Your task to perform on an android device: Clear the cart on walmart.com. Add duracell triple a to the cart on walmart.com Image 0: 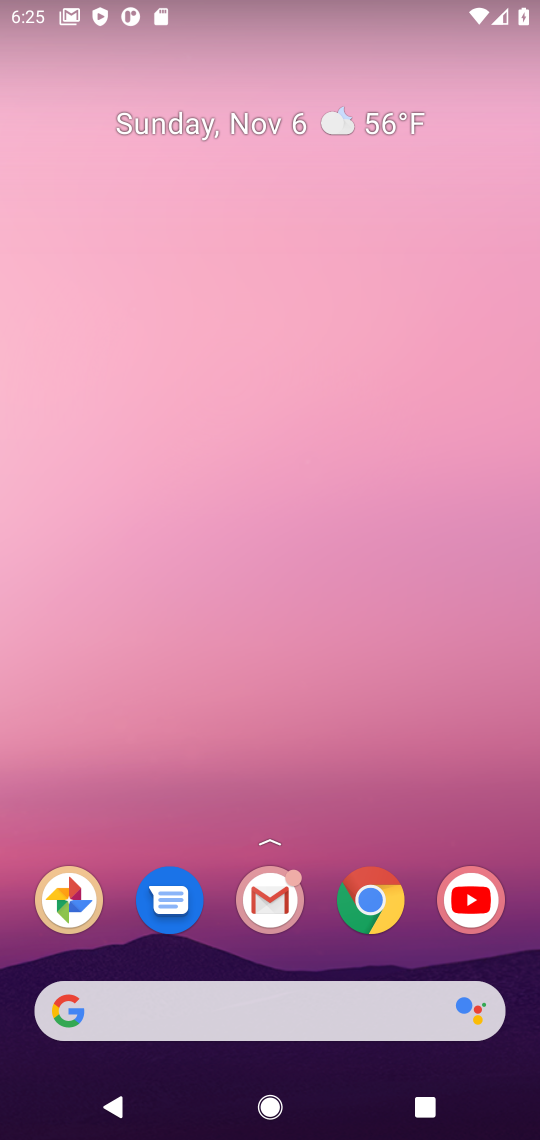
Step 0: drag from (333, 914) to (307, 68)
Your task to perform on an android device: Clear the cart on walmart.com. Add duracell triple a to the cart on walmart.com Image 1: 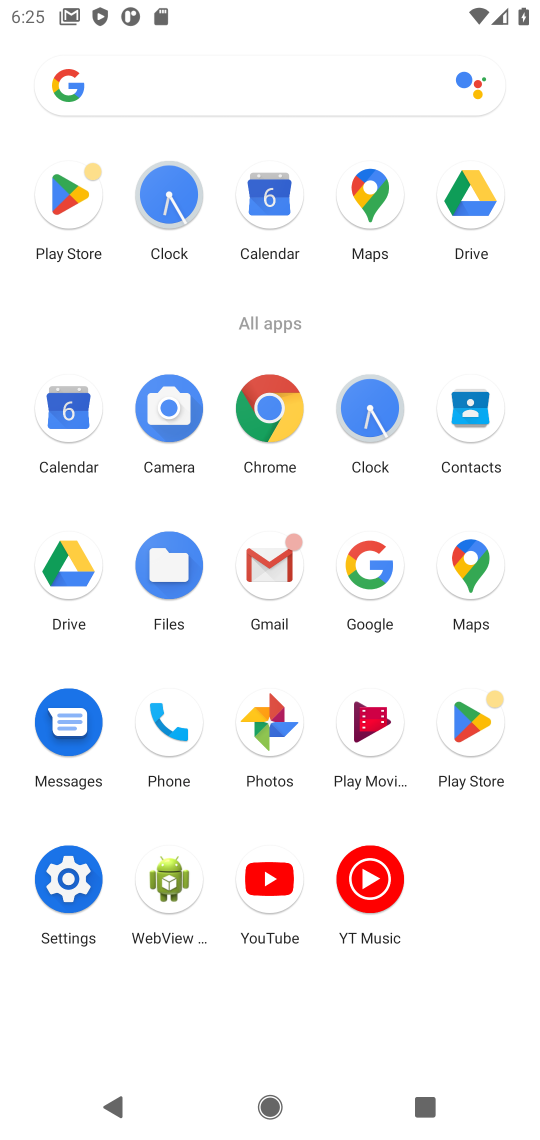
Step 1: click (271, 416)
Your task to perform on an android device: Clear the cart on walmart.com. Add duracell triple a to the cart on walmart.com Image 2: 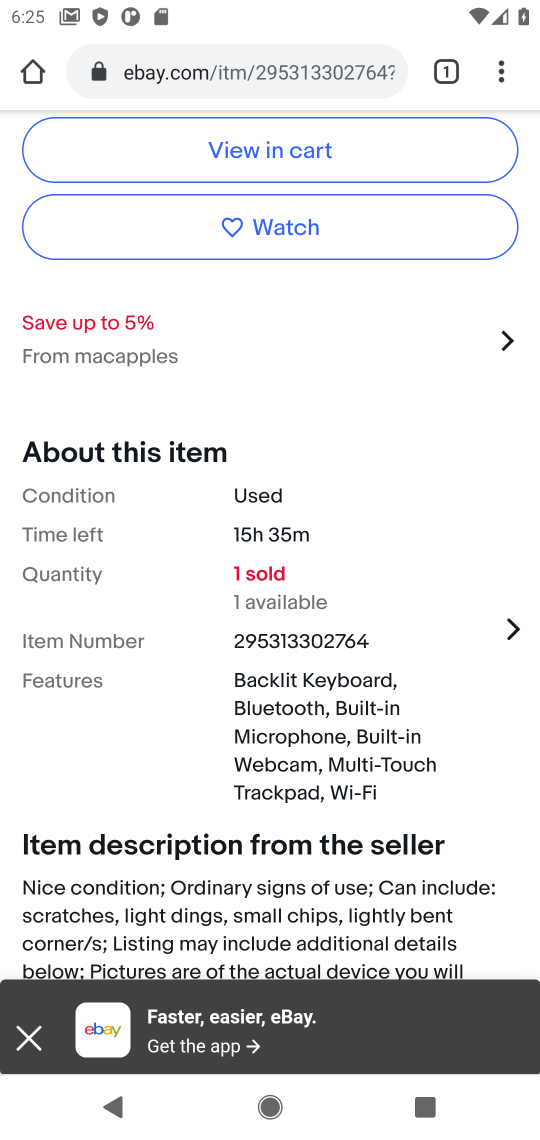
Step 2: click (303, 73)
Your task to perform on an android device: Clear the cart on walmart.com. Add duracell triple a to the cart on walmart.com Image 3: 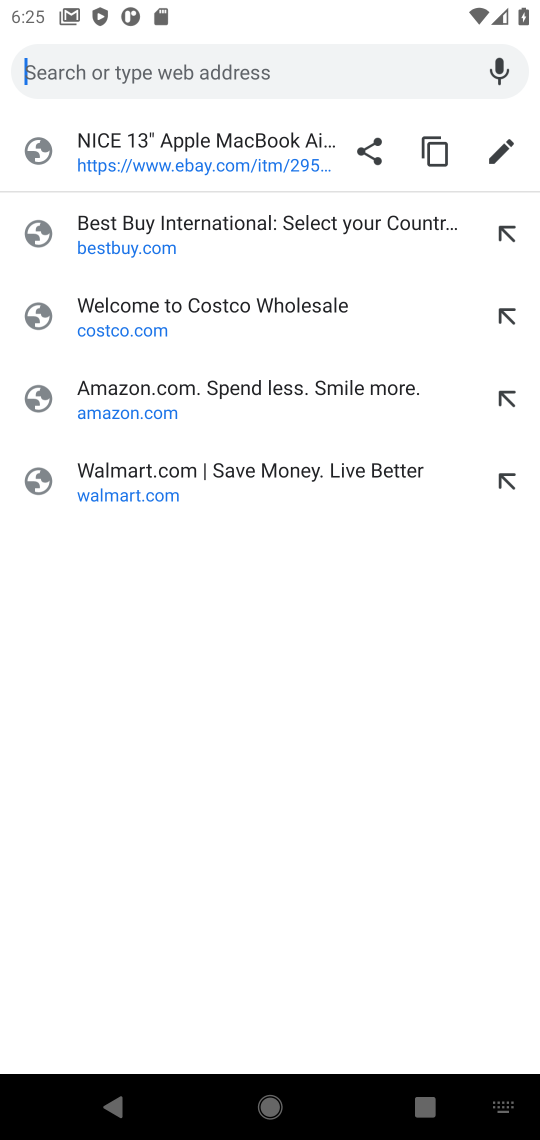
Step 3: type "walmart.com"
Your task to perform on an android device: Clear the cart on walmart.com. Add duracell triple a to the cart on walmart.com Image 4: 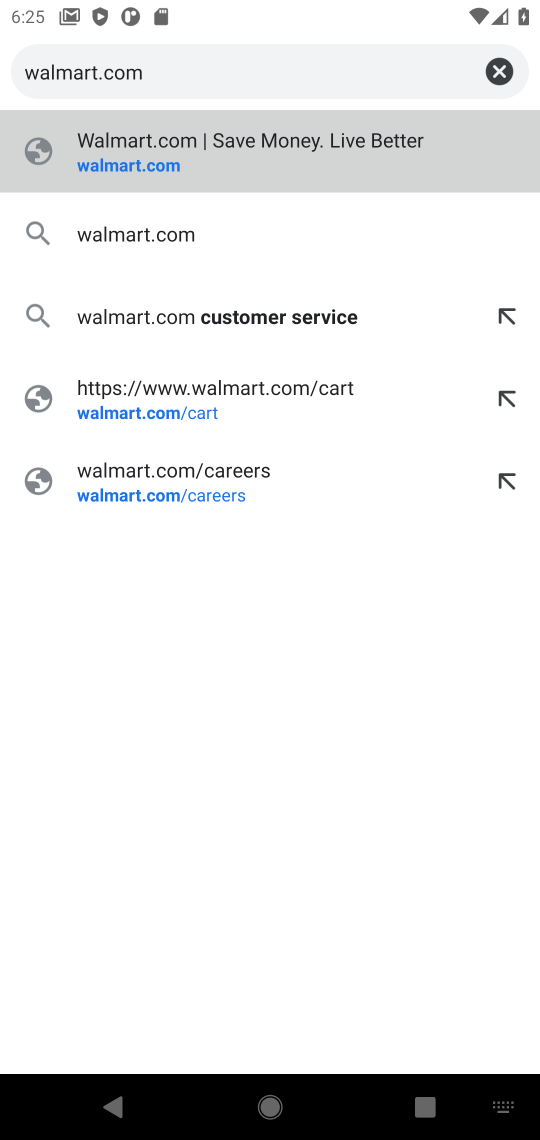
Step 4: press enter
Your task to perform on an android device: Clear the cart on walmart.com. Add duracell triple a to the cart on walmart.com Image 5: 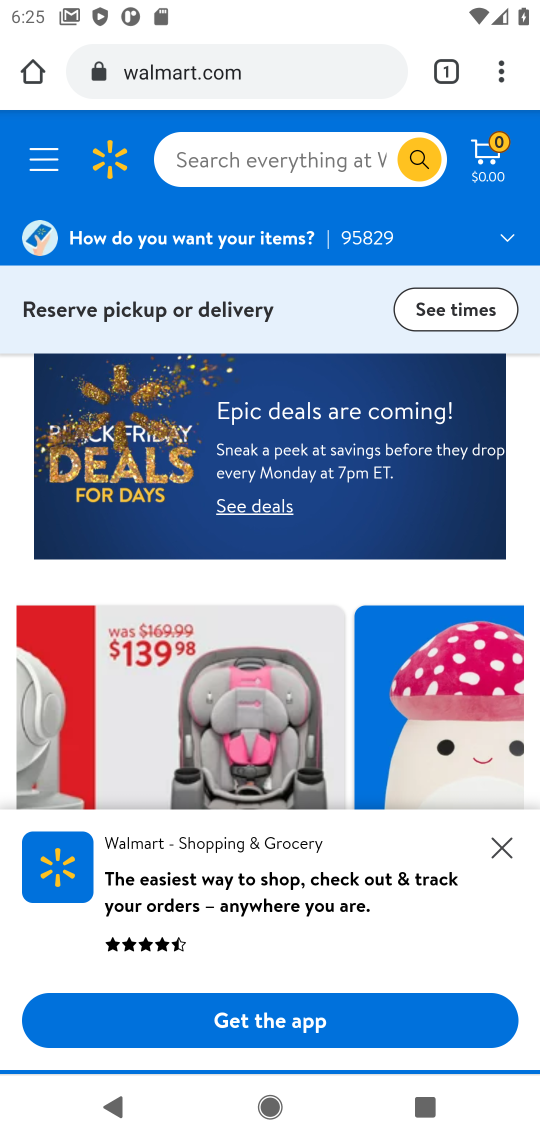
Step 5: click (487, 153)
Your task to perform on an android device: Clear the cart on walmart.com. Add duracell triple a to the cart on walmart.com Image 6: 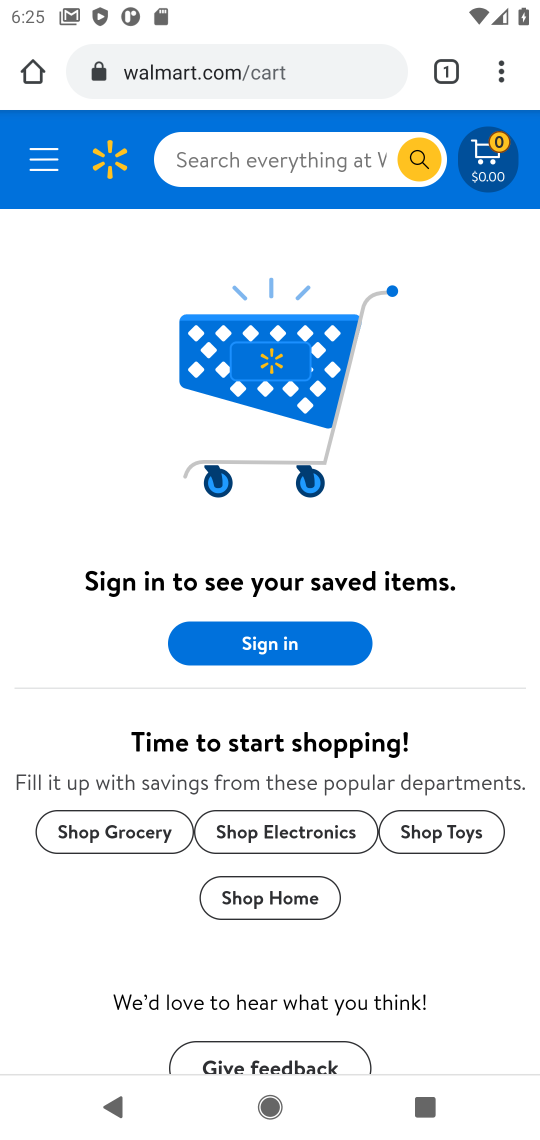
Step 6: click (298, 150)
Your task to perform on an android device: Clear the cart on walmart.com. Add duracell triple a to the cart on walmart.com Image 7: 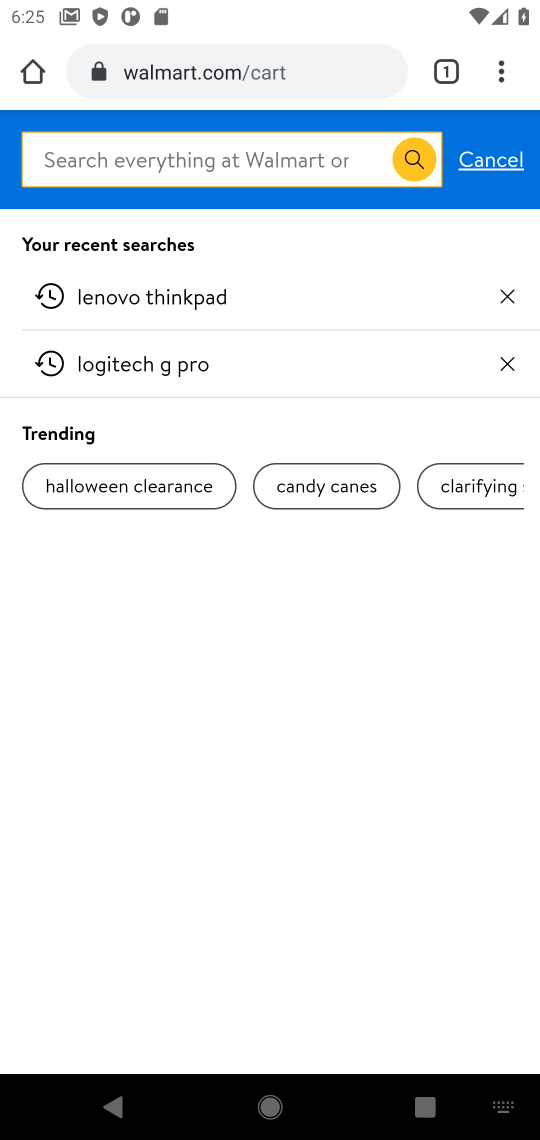
Step 7: type "duracell triple a"
Your task to perform on an android device: Clear the cart on walmart.com. Add duracell triple a to the cart on walmart.com Image 8: 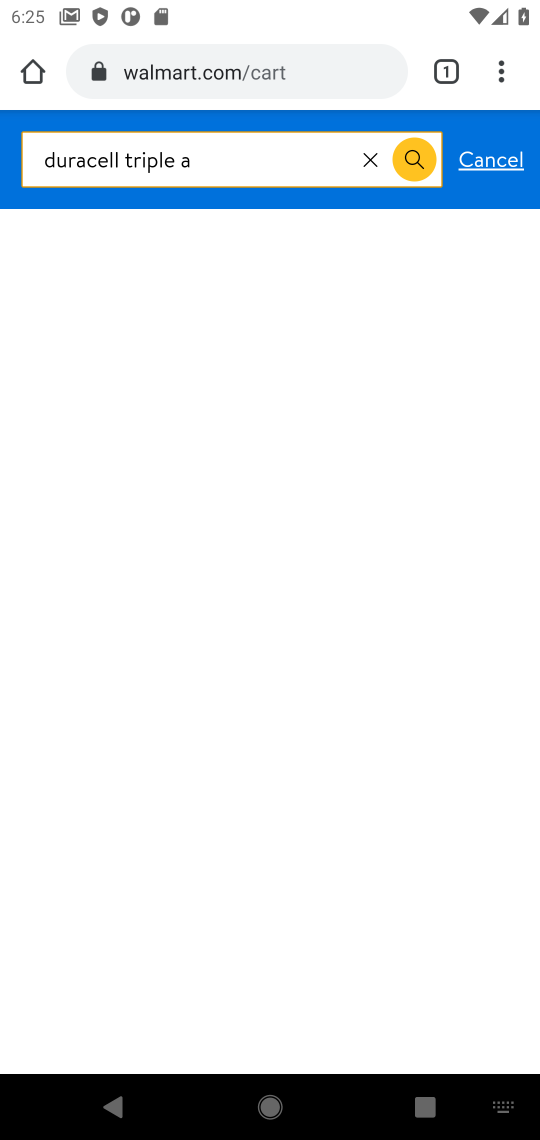
Step 8: press enter
Your task to perform on an android device: Clear the cart on walmart.com. Add duracell triple a to the cart on walmart.com Image 9: 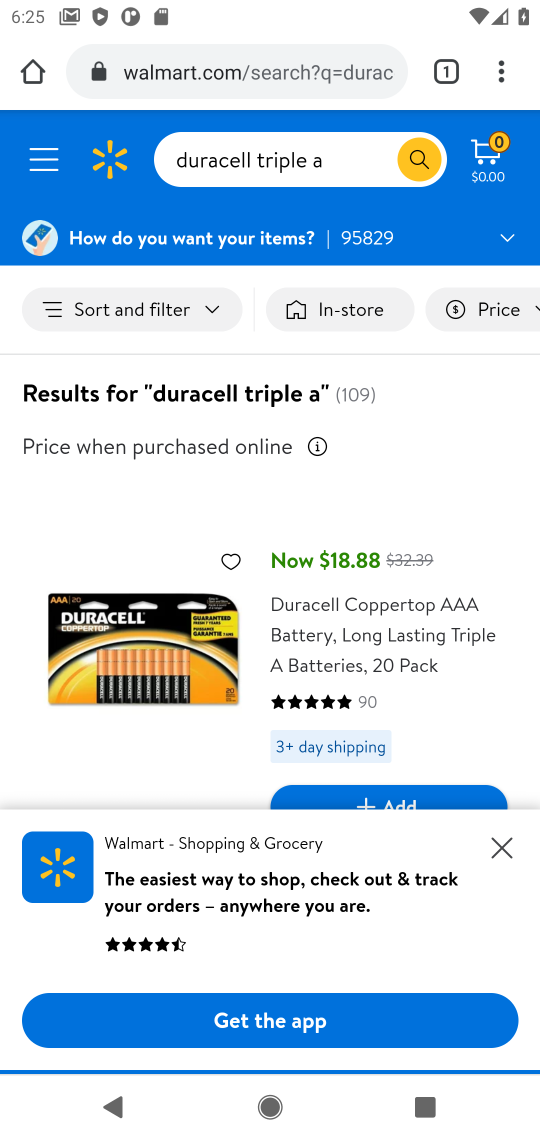
Step 9: drag from (400, 699) to (421, 297)
Your task to perform on an android device: Clear the cart on walmart.com. Add duracell triple a to the cart on walmart.com Image 10: 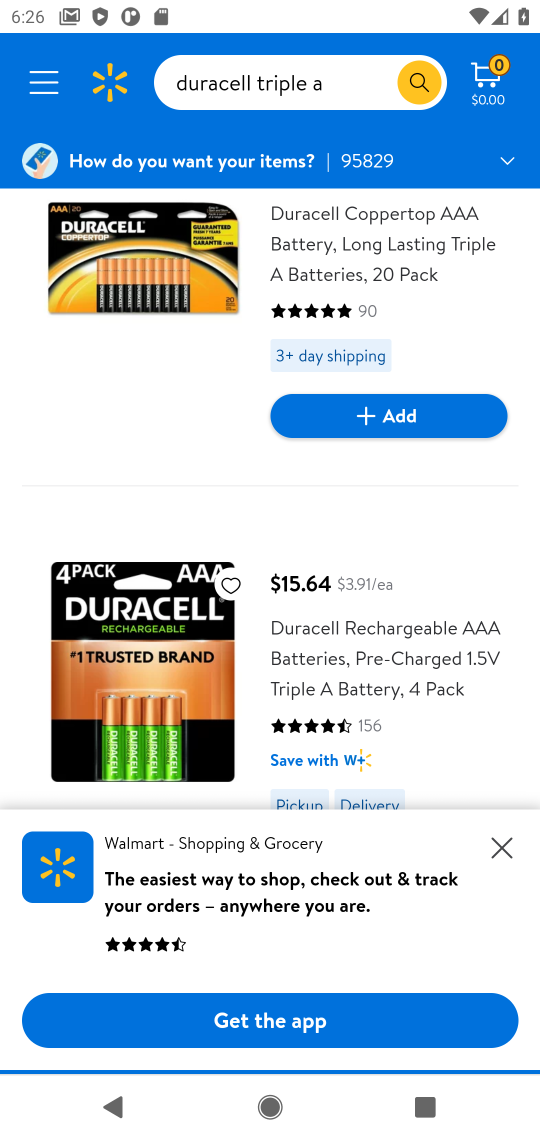
Step 10: click (395, 416)
Your task to perform on an android device: Clear the cart on walmart.com. Add duracell triple a to the cart on walmart.com Image 11: 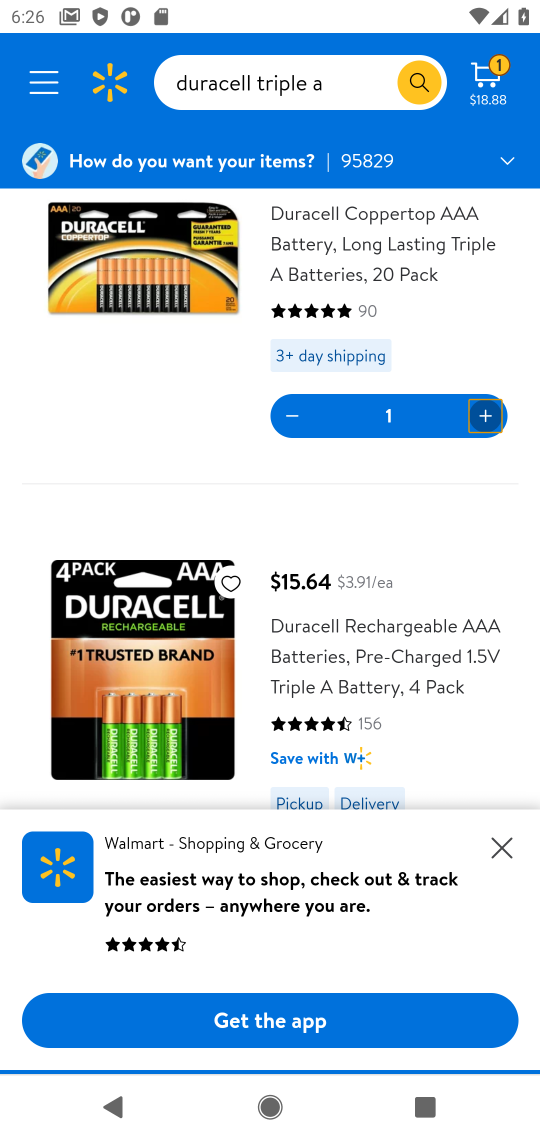
Step 11: task complete